Your task to perform on an android device: What's the weather going to be tomorrow? Image 0: 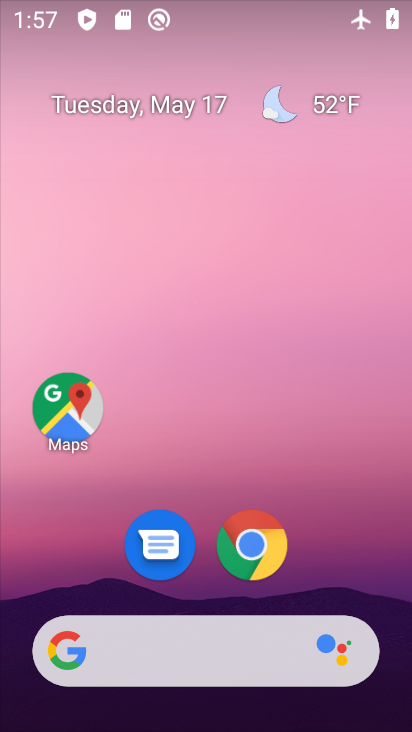
Step 0: click (209, 660)
Your task to perform on an android device: What's the weather going to be tomorrow? Image 1: 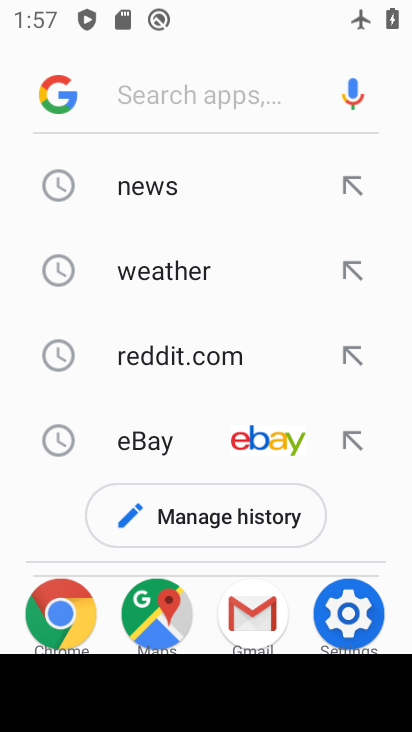
Step 1: click (194, 277)
Your task to perform on an android device: What's the weather going to be tomorrow? Image 2: 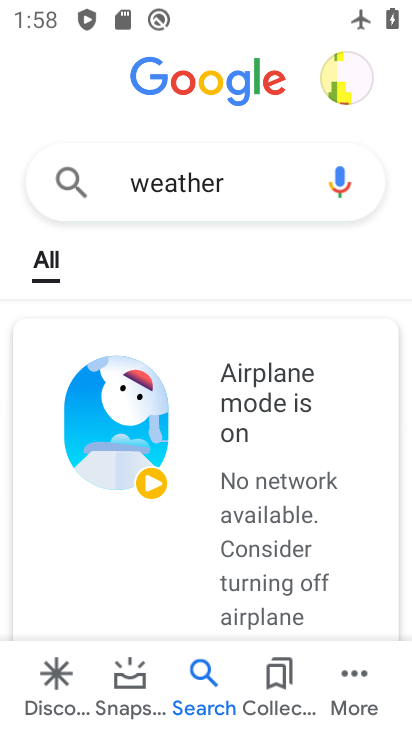
Step 2: task complete